Your task to perform on an android device: star an email in the gmail app Image 0: 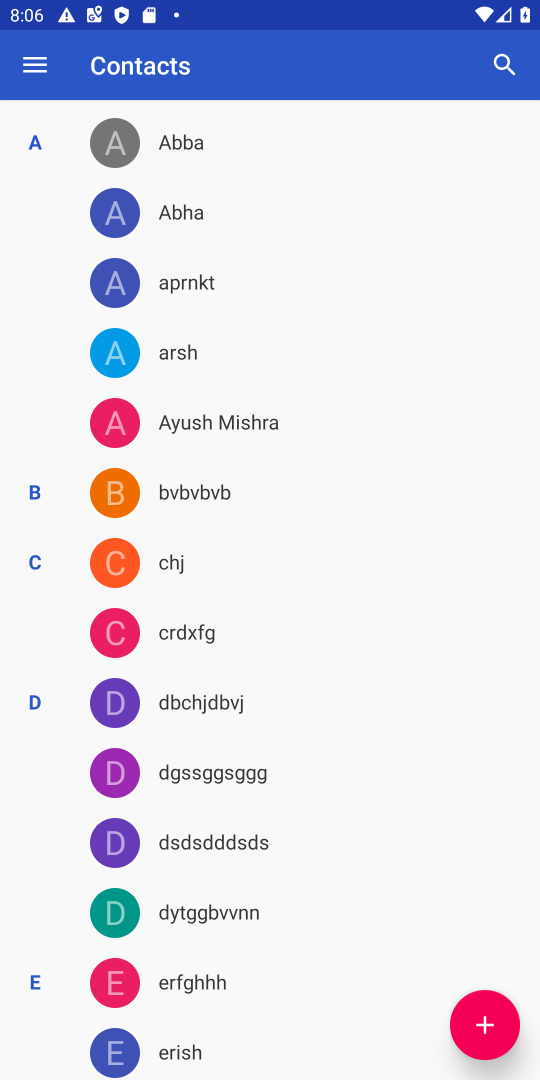
Step 0: press home button
Your task to perform on an android device: star an email in the gmail app Image 1: 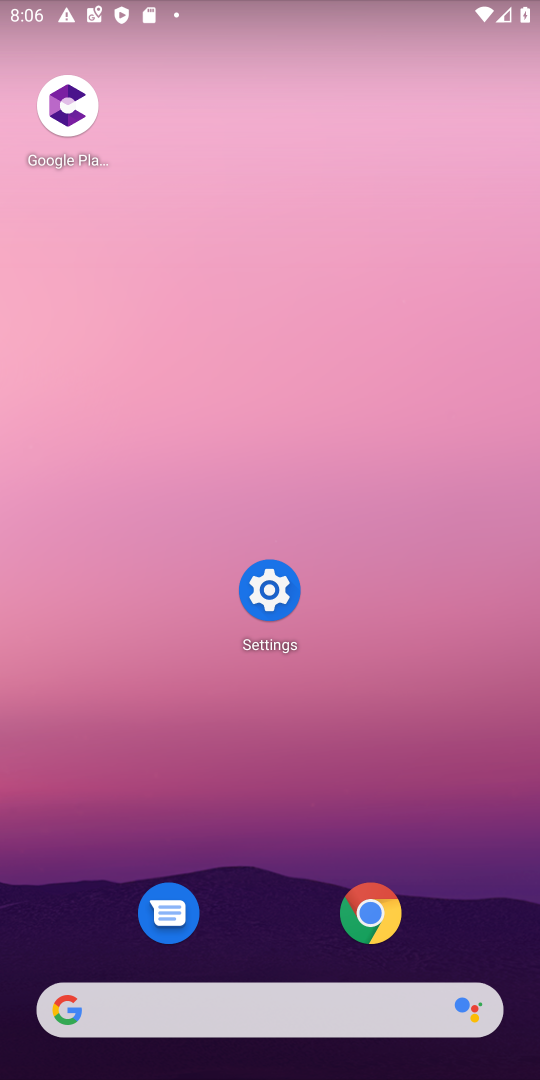
Step 1: drag from (252, 999) to (368, 116)
Your task to perform on an android device: star an email in the gmail app Image 2: 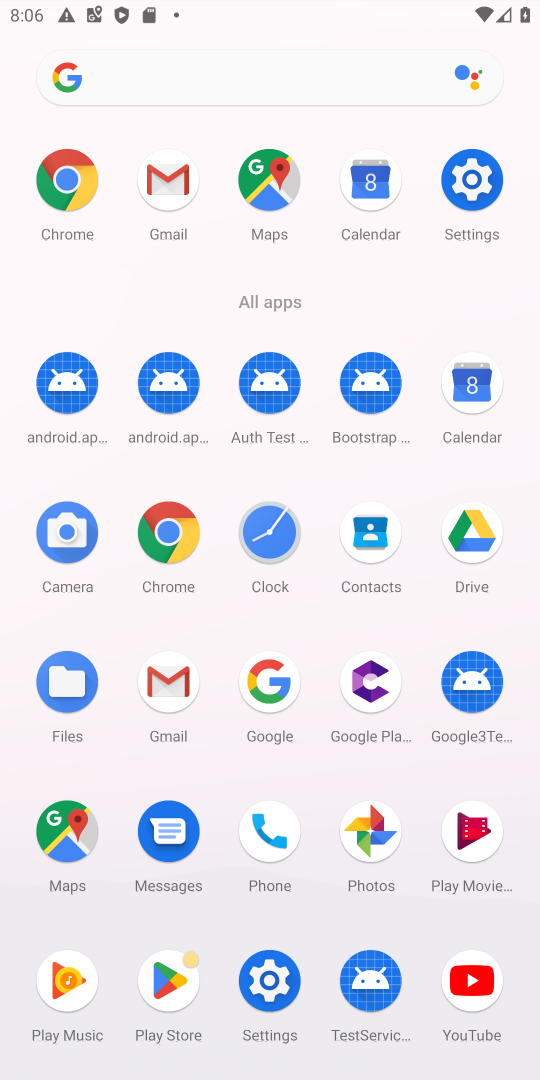
Step 2: click (170, 178)
Your task to perform on an android device: star an email in the gmail app Image 3: 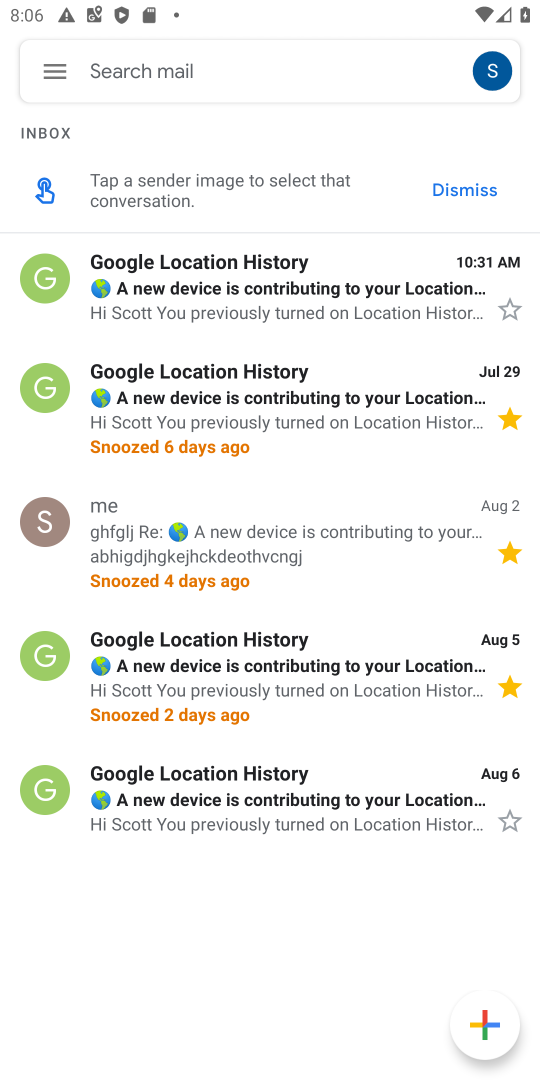
Step 3: click (505, 307)
Your task to perform on an android device: star an email in the gmail app Image 4: 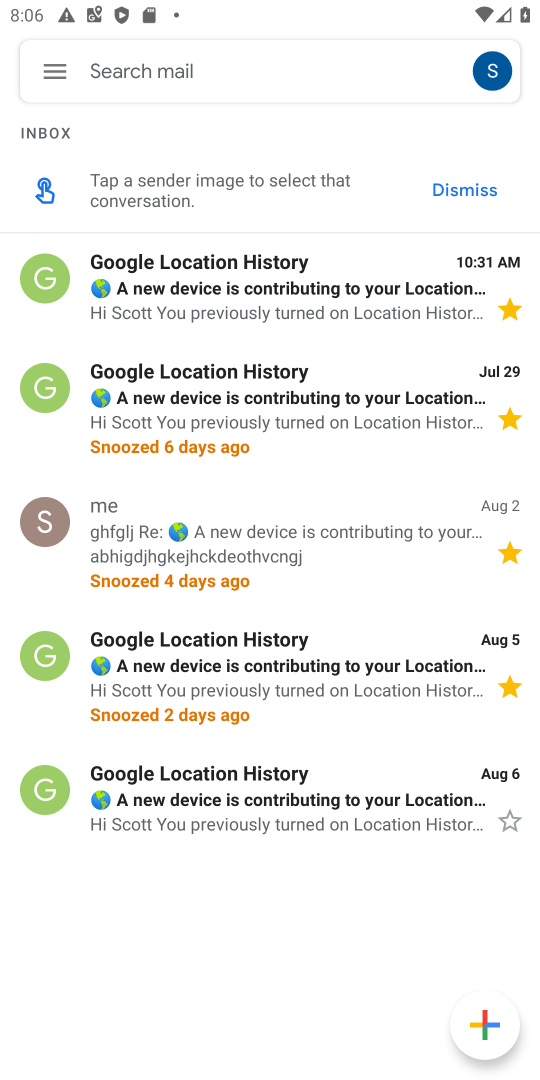
Step 4: task complete